Your task to perform on an android device: Go to network settings Image 0: 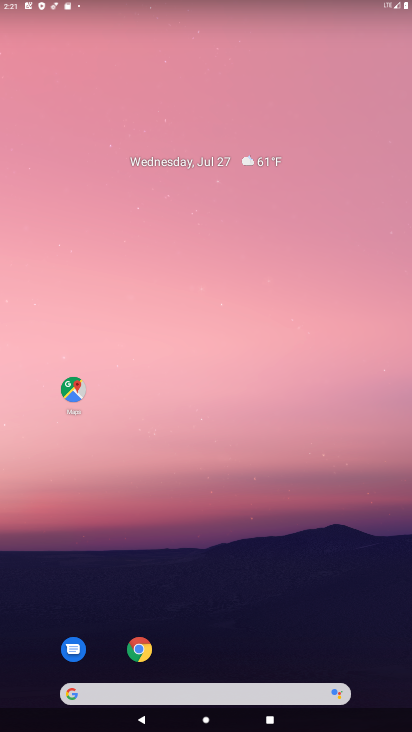
Step 0: drag from (167, 388) to (167, 187)
Your task to perform on an android device: Go to network settings Image 1: 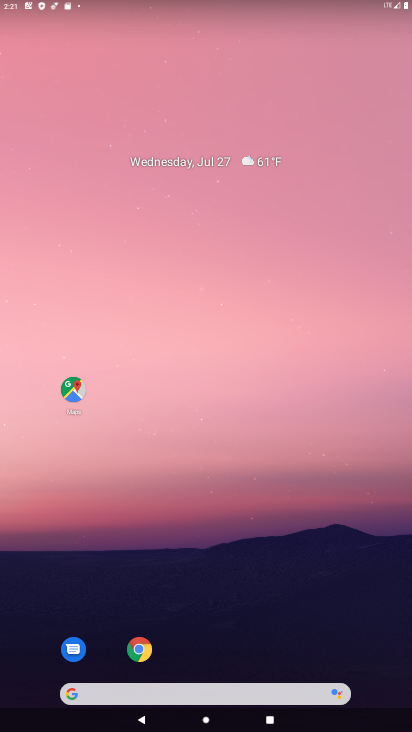
Step 1: drag from (187, 661) to (183, 166)
Your task to perform on an android device: Go to network settings Image 2: 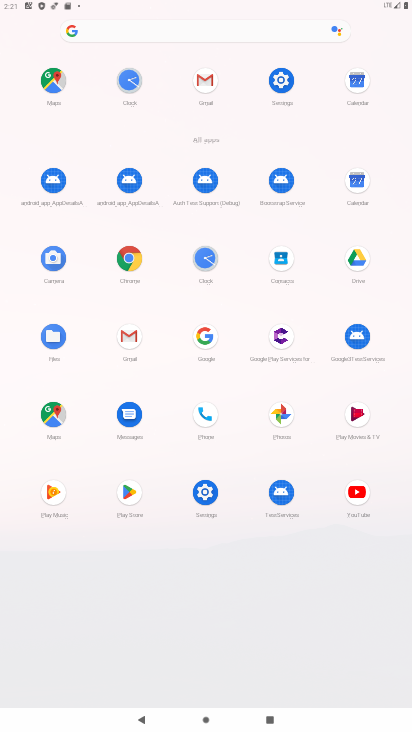
Step 2: click (276, 83)
Your task to perform on an android device: Go to network settings Image 3: 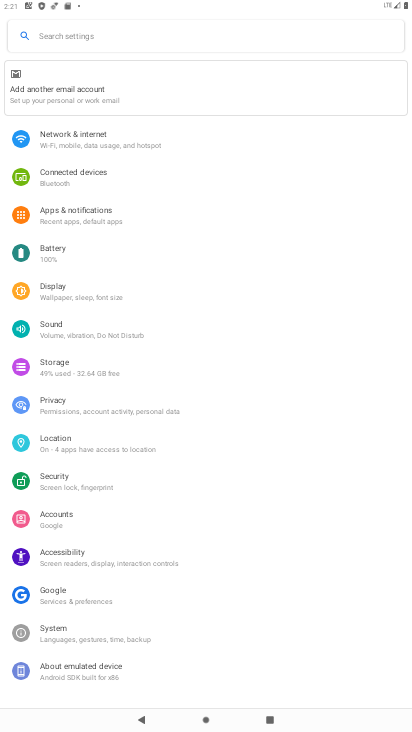
Step 3: click (86, 146)
Your task to perform on an android device: Go to network settings Image 4: 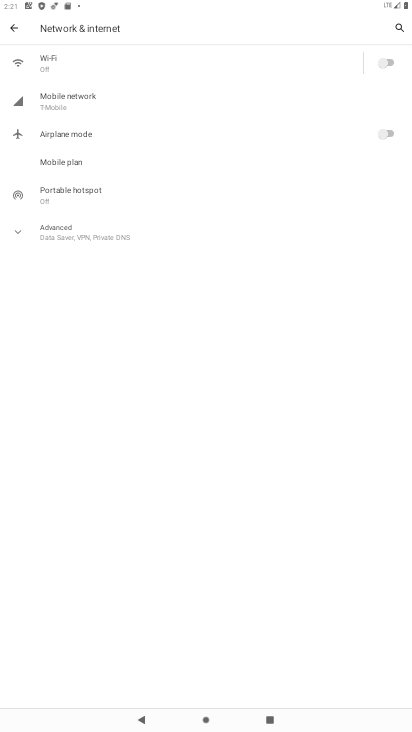
Step 4: task complete